Your task to perform on an android device: turn off notifications in google photos Image 0: 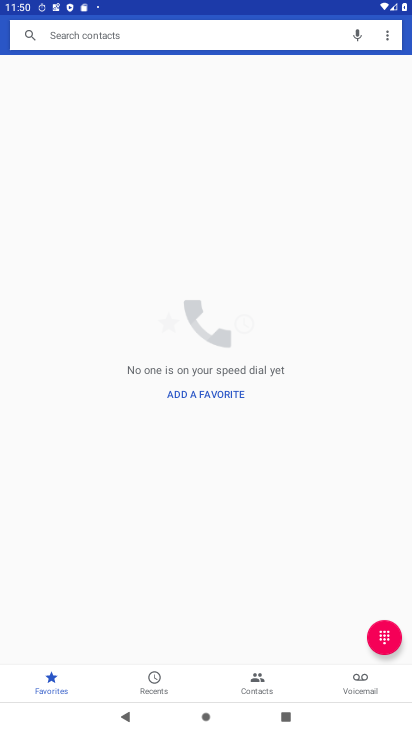
Step 0: press home button
Your task to perform on an android device: turn off notifications in google photos Image 1: 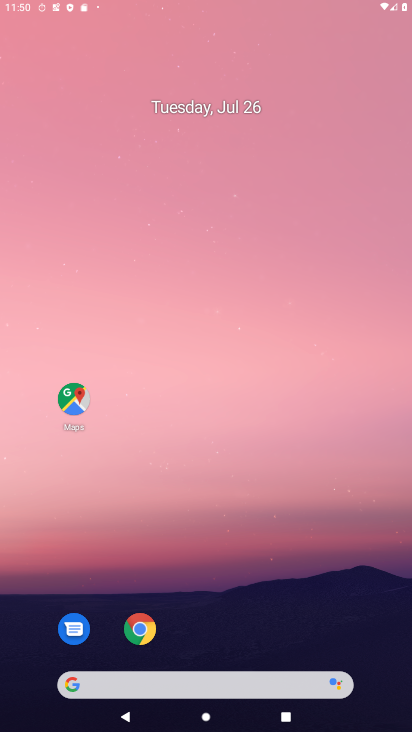
Step 1: drag from (366, 634) to (260, 39)
Your task to perform on an android device: turn off notifications in google photos Image 2: 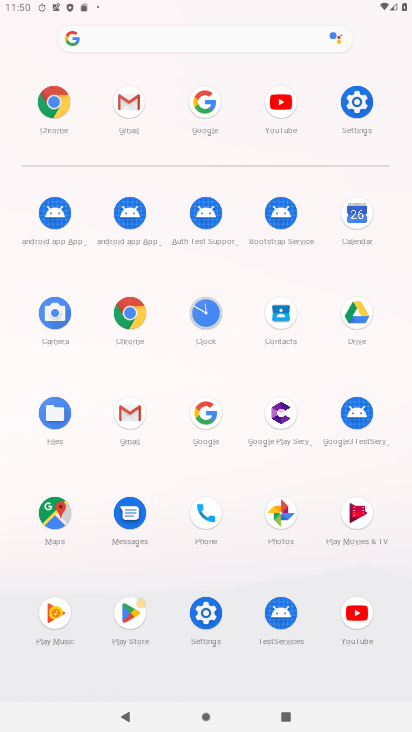
Step 2: click (274, 513)
Your task to perform on an android device: turn off notifications in google photos Image 3: 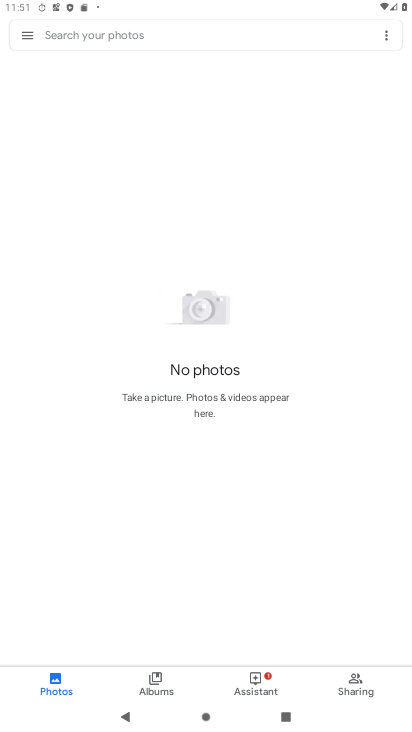
Step 3: click (13, 32)
Your task to perform on an android device: turn off notifications in google photos Image 4: 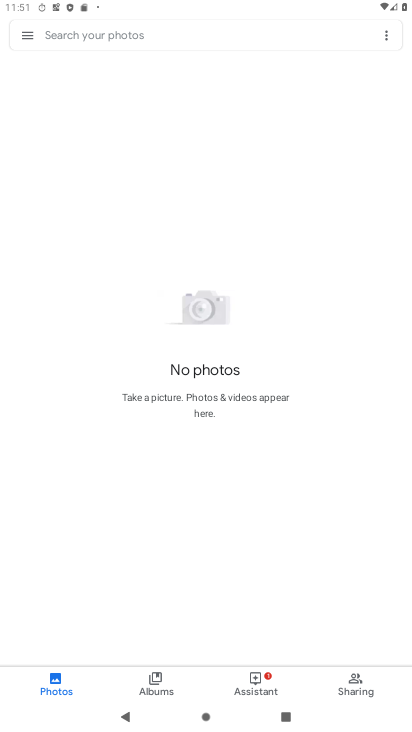
Step 4: click (26, 38)
Your task to perform on an android device: turn off notifications in google photos Image 5: 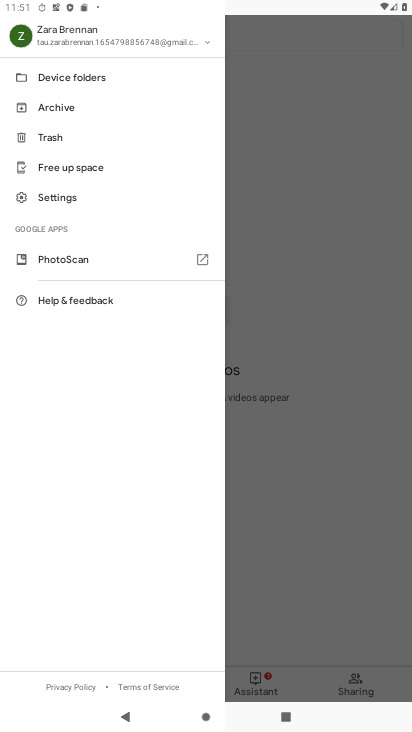
Step 5: click (64, 198)
Your task to perform on an android device: turn off notifications in google photos Image 6: 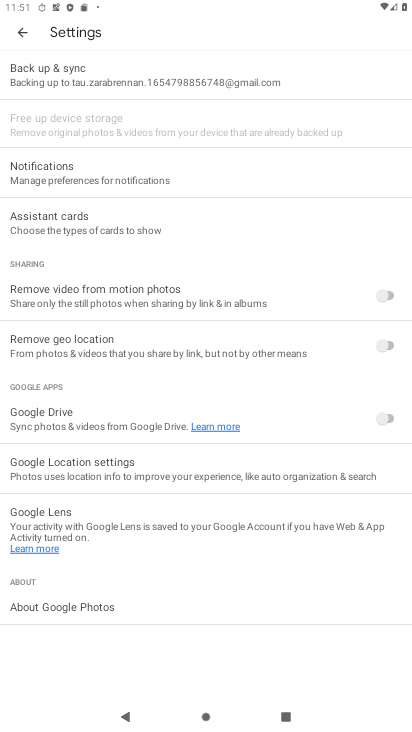
Step 6: click (64, 177)
Your task to perform on an android device: turn off notifications in google photos Image 7: 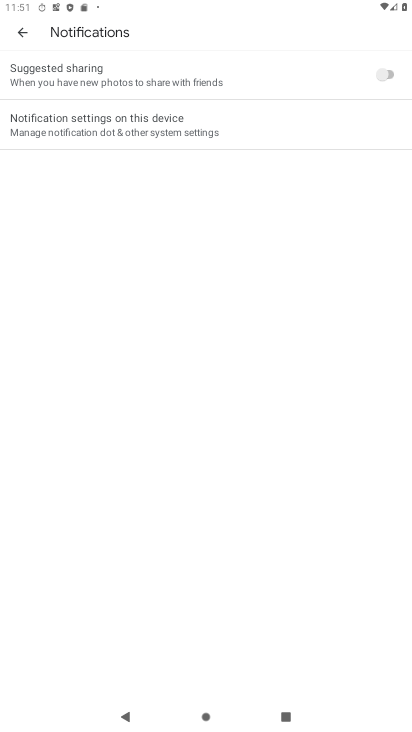
Step 7: task complete